Your task to perform on an android device: set the timer Image 0: 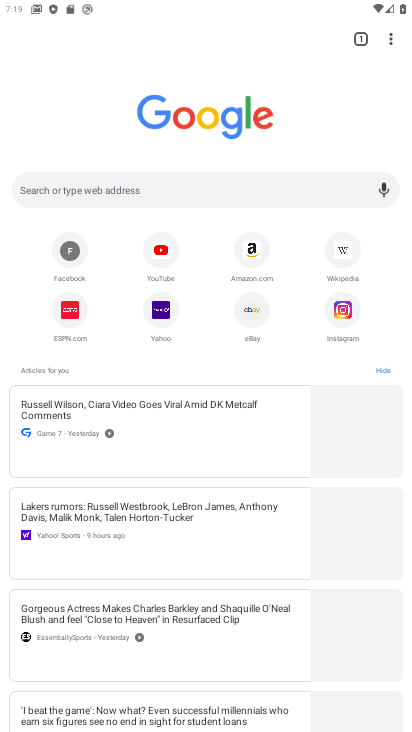
Step 0: press home button
Your task to perform on an android device: set the timer Image 1: 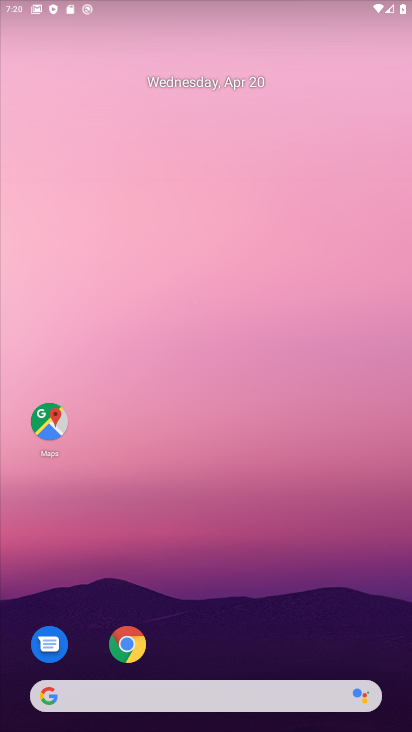
Step 1: drag from (356, 645) to (147, 64)
Your task to perform on an android device: set the timer Image 2: 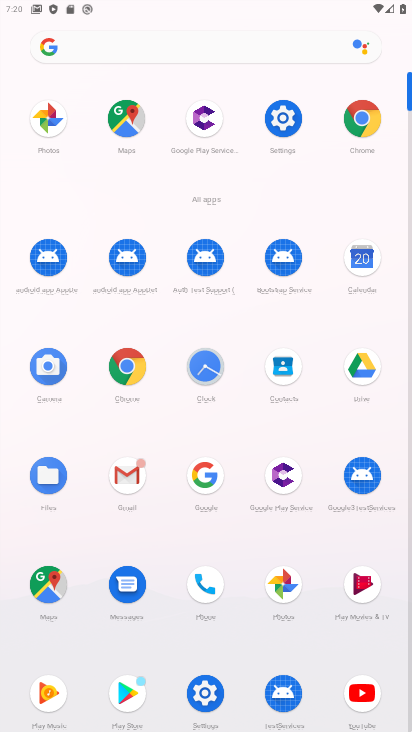
Step 2: click (212, 375)
Your task to perform on an android device: set the timer Image 3: 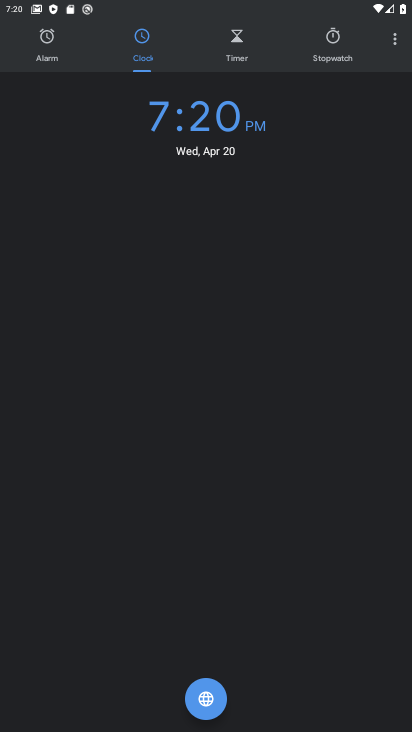
Step 3: click (393, 34)
Your task to perform on an android device: set the timer Image 4: 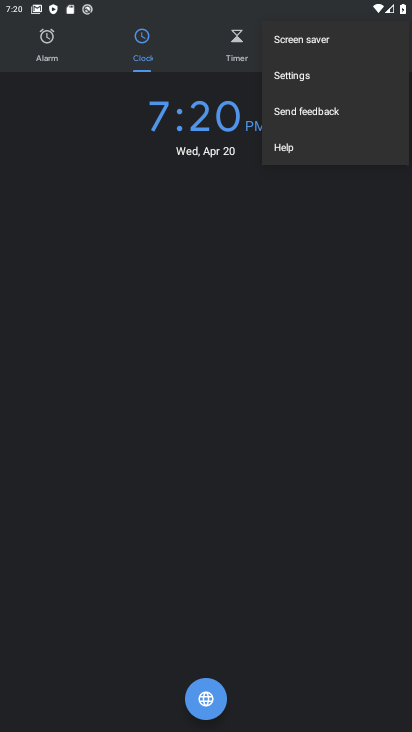
Step 4: click (344, 74)
Your task to perform on an android device: set the timer Image 5: 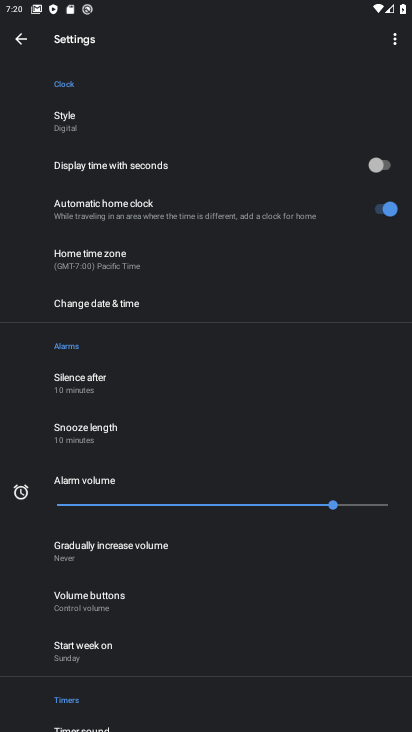
Step 5: click (154, 276)
Your task to perform on an android device: set the timer Image 6: 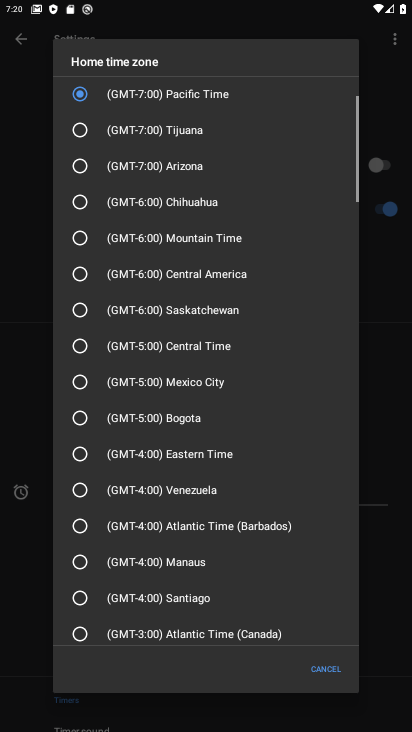
Step 6: click (159, 150)
Your task to perform on an android device: set the timer Image 7: 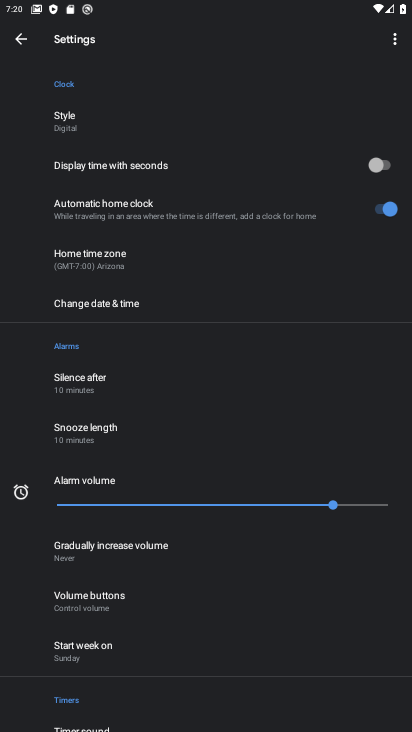
Step 7: task complete